Your task to perform on an android device: change keyboard looks Image 0: 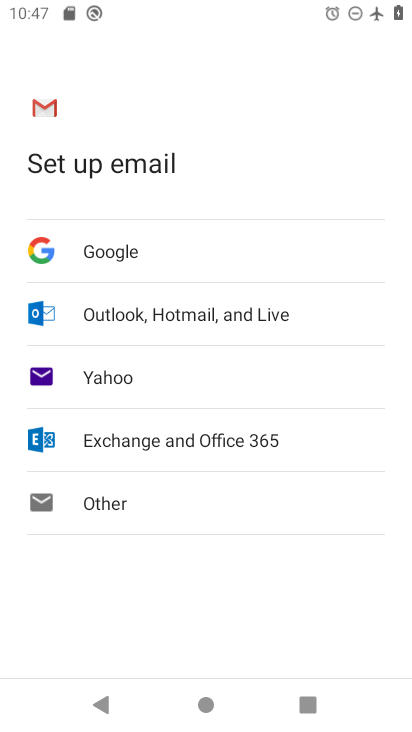
Step 0: press home button
Your task to perform on an android device: change keyboard looks Image 1: 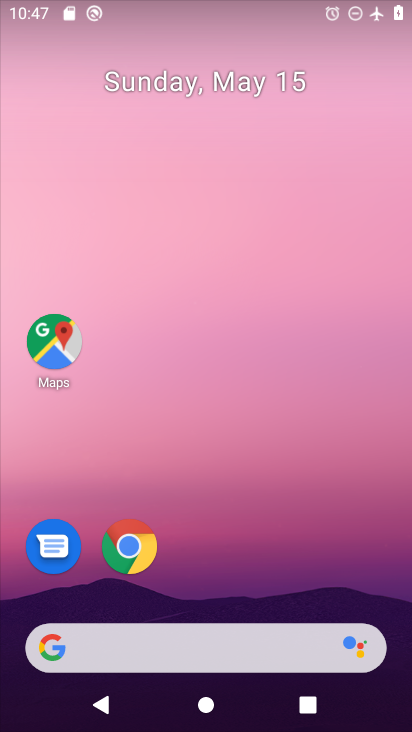
Step 1: drag from (344, 541) to (279, 142)
Your task to perform on an android device: change keyboard looks Image 2: 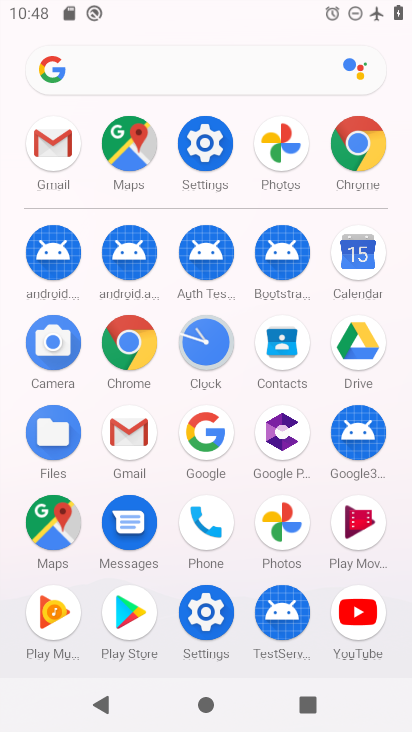
Step 2: click (210, 152)
Your task to perform on an android device: change keyboard looks Image 3: 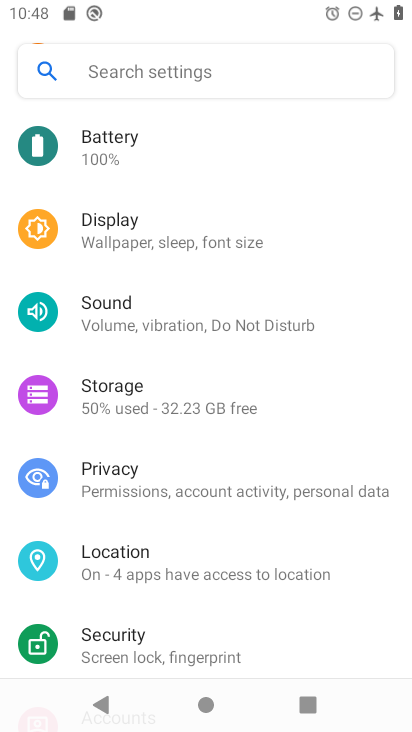
Step 3: drag from (245, 603) to (377, 175)
Your task to perform on an android device: change keyboard looks Image 4: 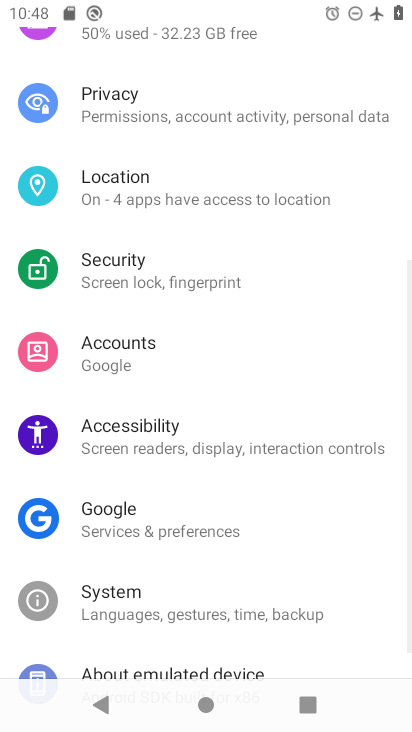
Step 4: drag from (299, 597) to (334, 188)
Your task to perform on an android device: change keyboard looks Image 5: 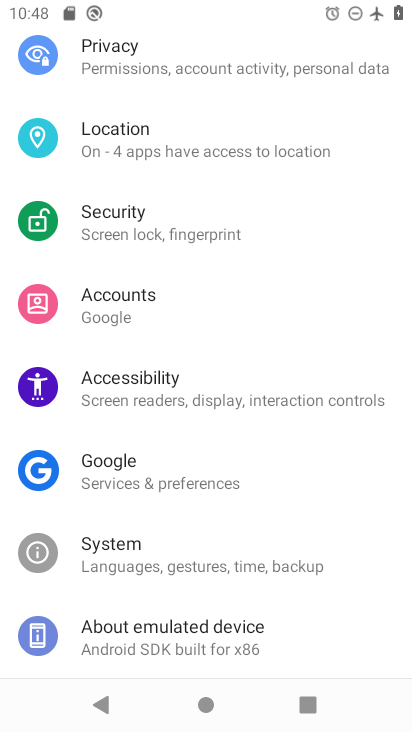
Step 5: drag from (267, 298) to (245, 659)
Your task to perform on an android device: change keyboard looks Image 6: 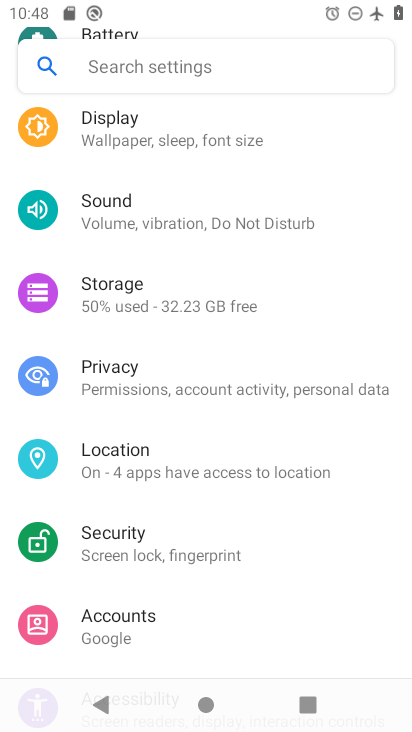
Step 6: click (188, 142)
Your task to perform on an android device: change keyboard looks Image 7: 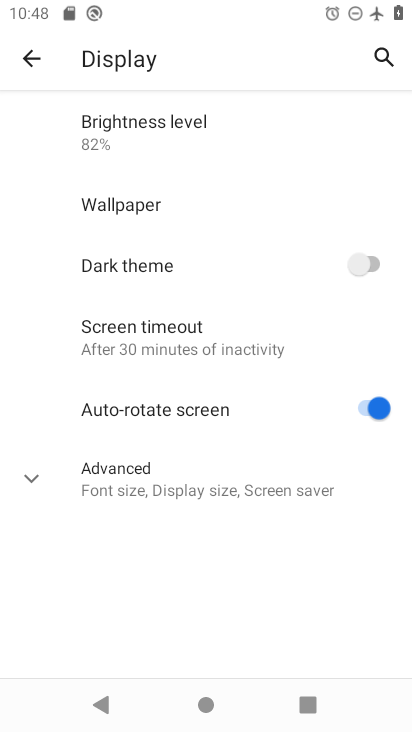
Step 7: click (164, 482)
Your task to perform on an android device: change keyboard looks Image 8: 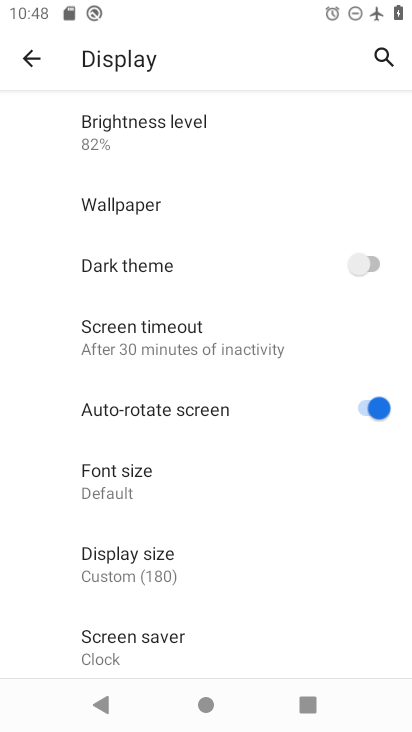
Step 8: click (129, 477)
Your task to perform on an android device: change keyboard looks Image 9: 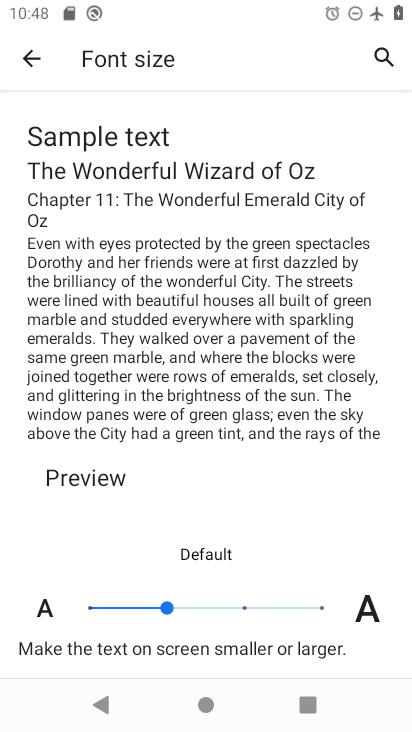
Step 9: click (31, 55)
Your task to perform on an android device: change keyboard looks Image 10: 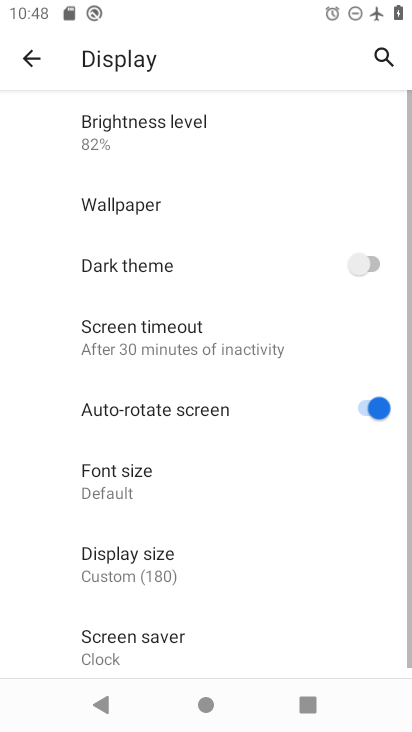
Step 10: drag from (249, 621) to (324, 170)
Your task to perform on an android device: change keyboard looks Image 11: 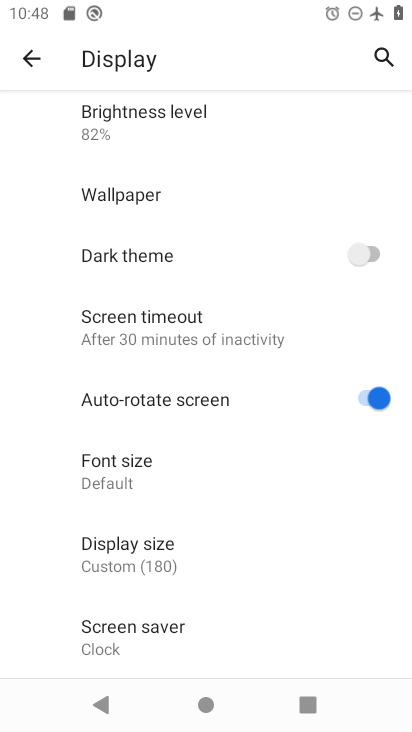
Step 11: click (33, 50)
Your task to perform on an android device: change keyboard looks Image 12: 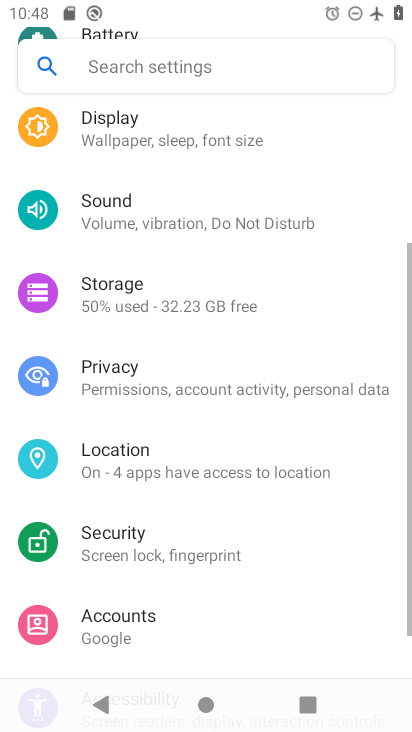
Step 12: drag from (296, 456) to (355, 161)
Your task to perform on an android device: change keyboard looks Image 13: 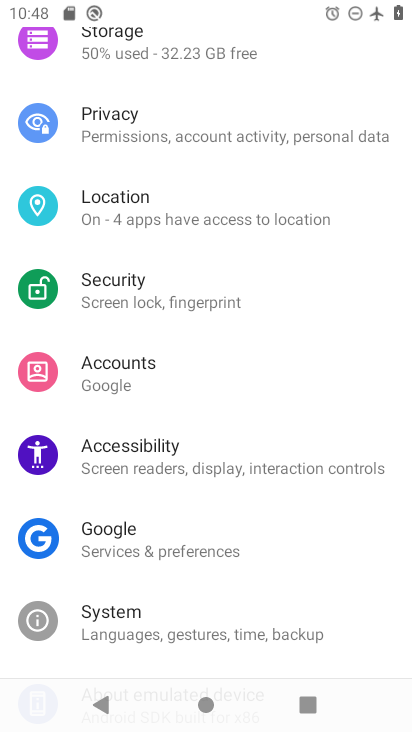
Step 13: drag from (231, 579) to (320, 271)
Your task to perform on an android device: change keyboard looks Image 14: 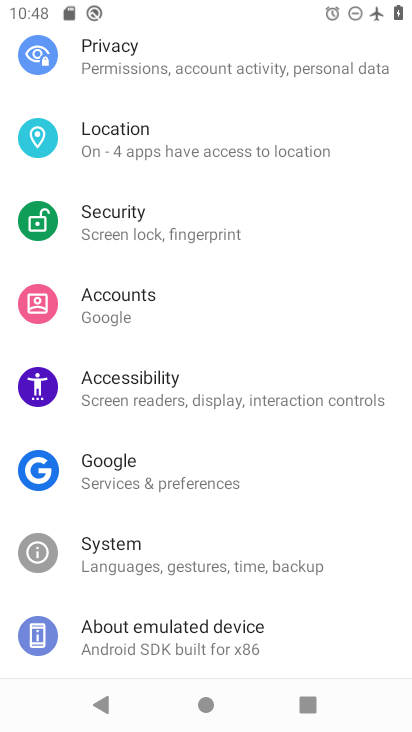
Step 14: click (119, 553)
Your task to perform on an android device: change keyboard looks Image 15: 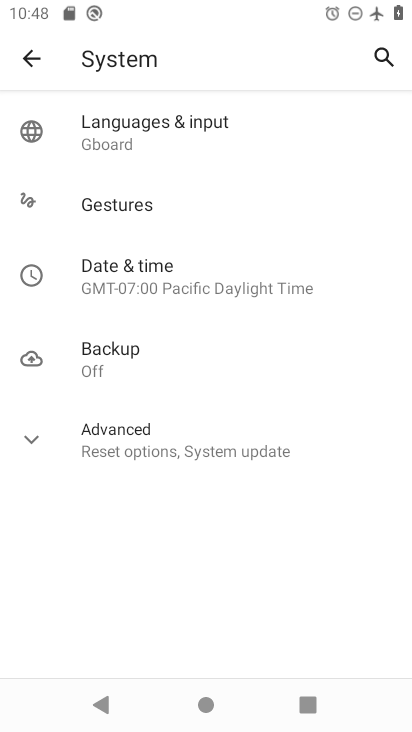
Step 15: click (119, 139)
Your task to perform on an android device: change keyboard looks Image 16: 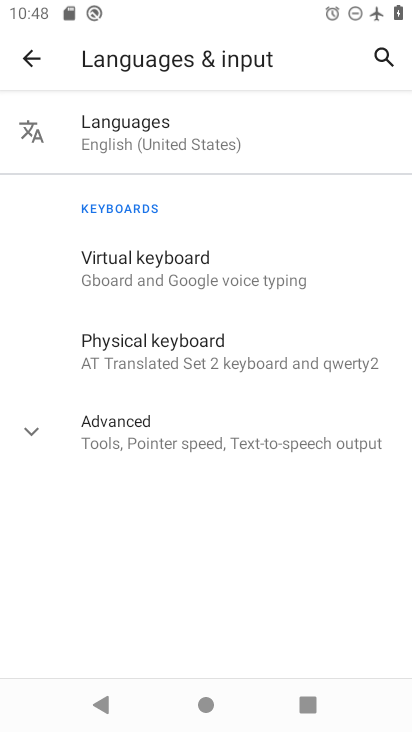
Step 16: click (134, 263)
Your task to perform on an android device: change keyboard looks Image 17: 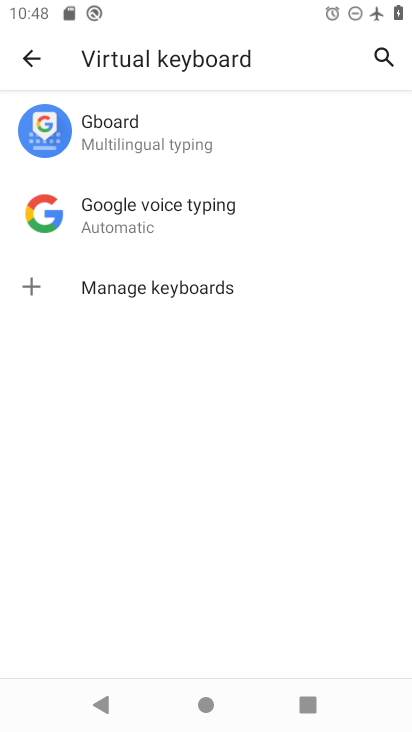
Step 17: click (120, 130)
Your task to perform on an android device: change keyboard looks Image 18: 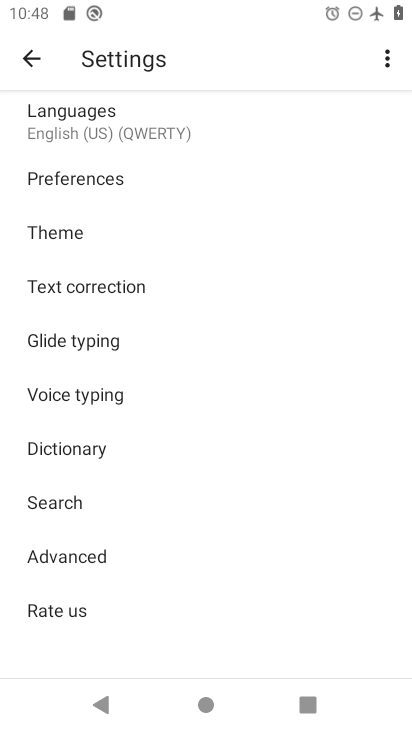
Step 18: click (68, 224)
Your task to perform on an android device: change keyboard looks Image 19: 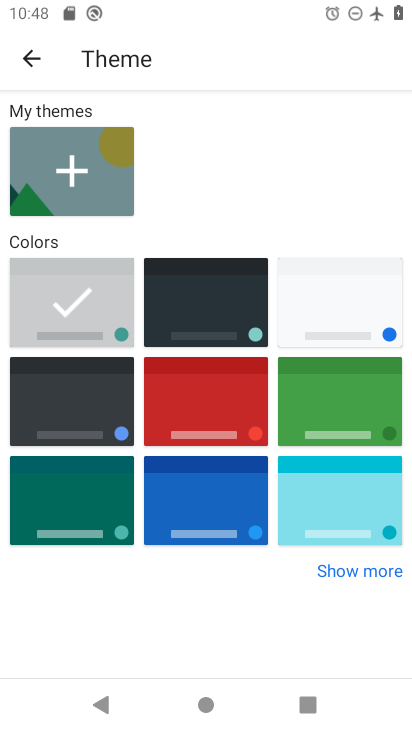
Step 19: click (318, 289)
Your task to perform on an android device: change keyboard looks Image 20: 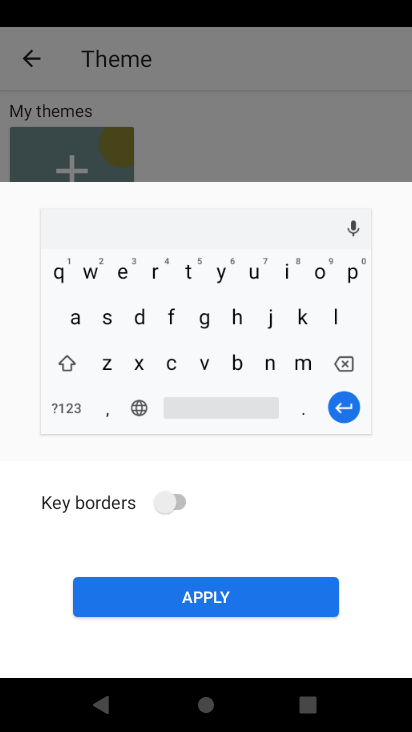
Step 20: click (203, 602)
Your task to perform on an android device: change keyboard looks Image 21: 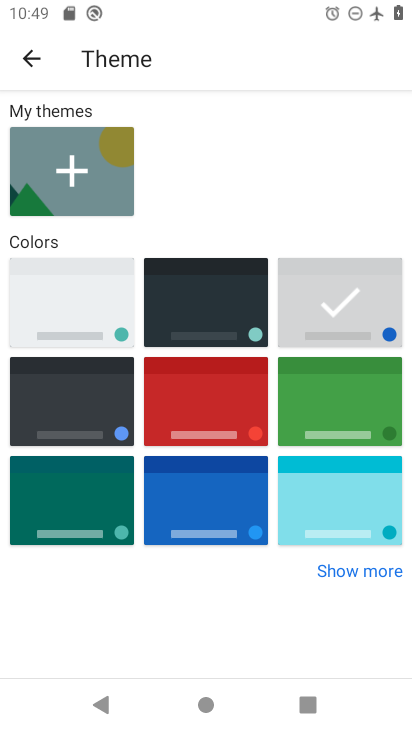
Step 21: task complete